Your task to perform on an android device: Is it going to rain today? Image 0: 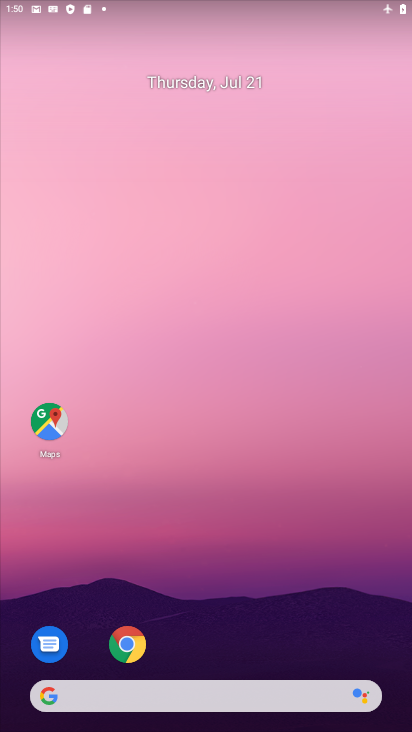
Step 0: click (133, 642)
Your task to perform on an android device: Is it going to rain today? Image 1: 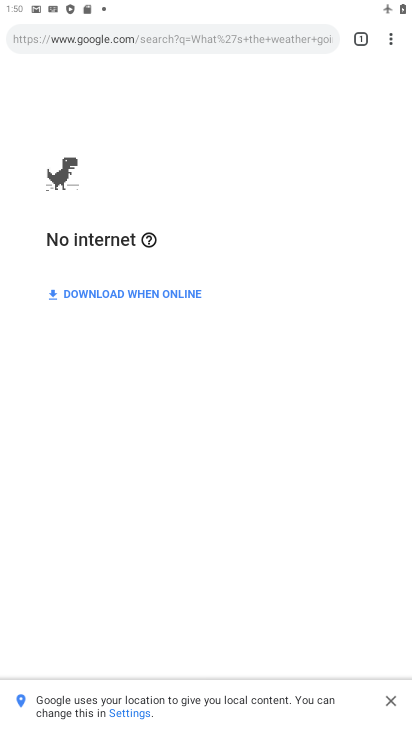
Step 1: click (228, 45)
Your task to perform on an android device: Is it going to rain today? Image 2: 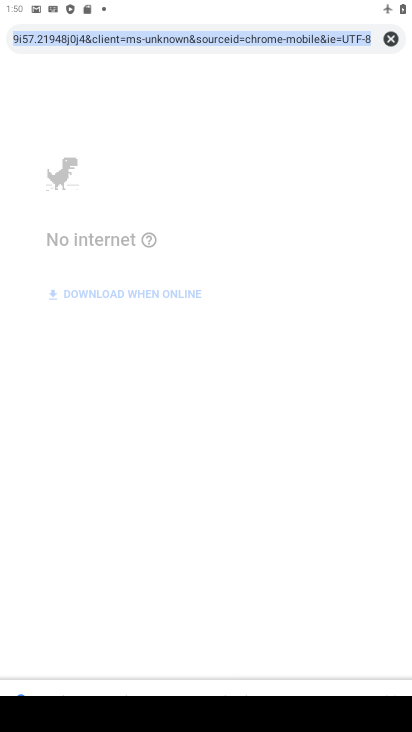
Step 2: type "Is it going to rain today?"
Your task to perform on an android device: Is it going to rain today? Image 3: 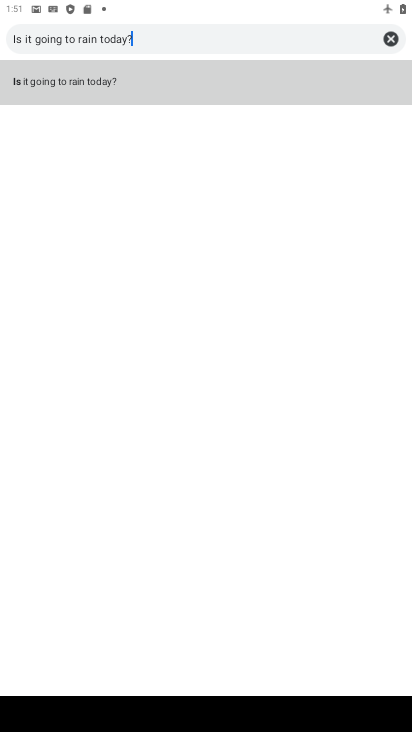
Step 3: click (98, 85)
Your task to perform on an android device: Is it going to rain today? Image 4: 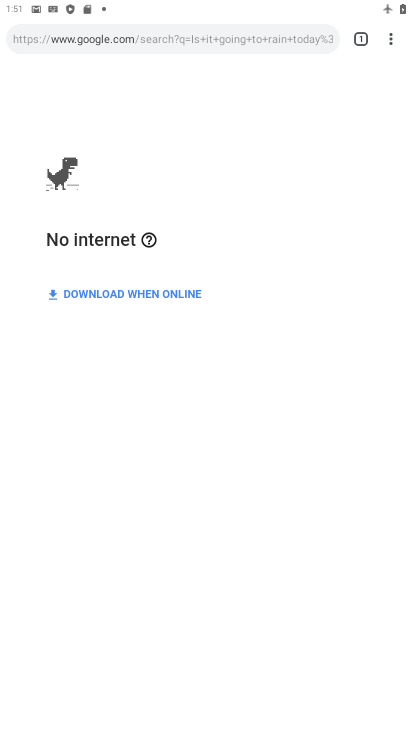
Step 4: task complete